Your task to perform on an android device: Go to CNN.com Image 0: 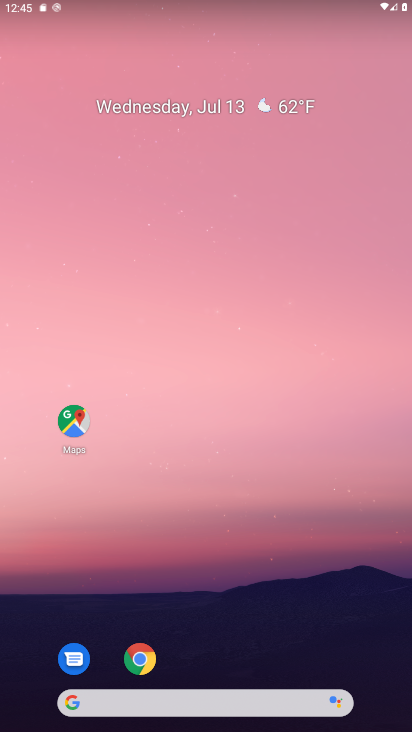
Step 0: drag from (223, 595) to (177, 219)
Your task to perform on an android device: Go to CNN.com Image 1: 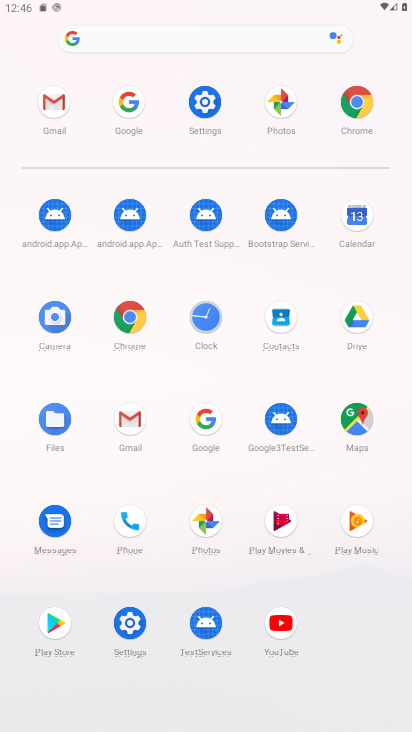
Step 1: click (357, 105)
Your task to perform on an android device: Go to CNN.com Image 2: 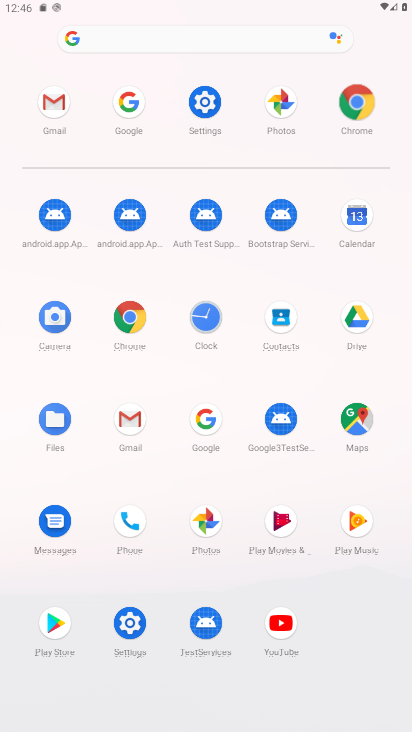
Step 2: click (360, 105)
Your task to perform on an android device: Go to CNN.com Image 3: 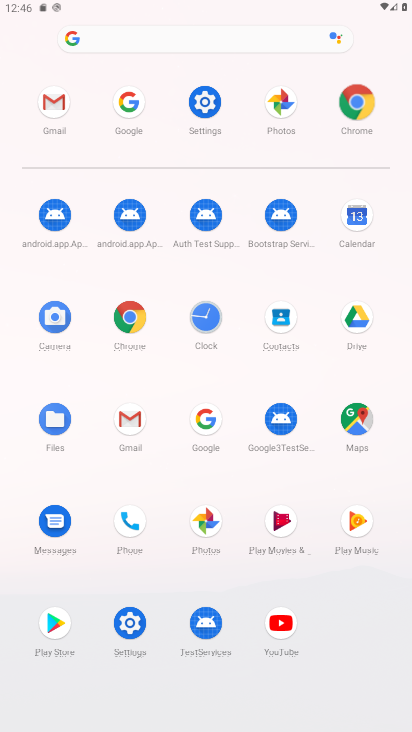
Step 3: click (361, 105)
Your task to perform on an android device: Go to CNN.com Image 4: 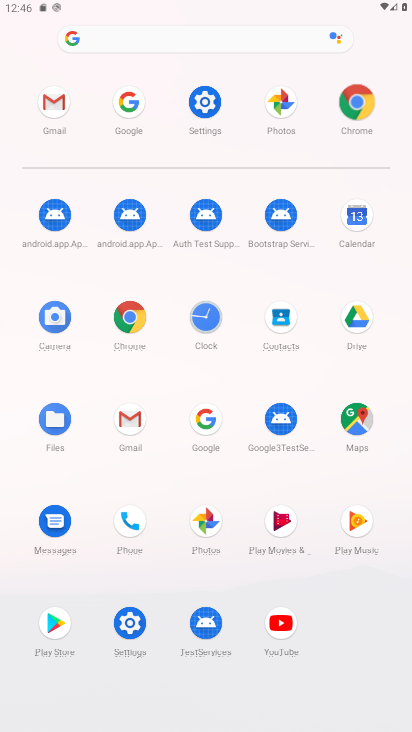
Step 4: click (358, 106)
Your task to perform on an android device: Go to CNN.com Image 5: 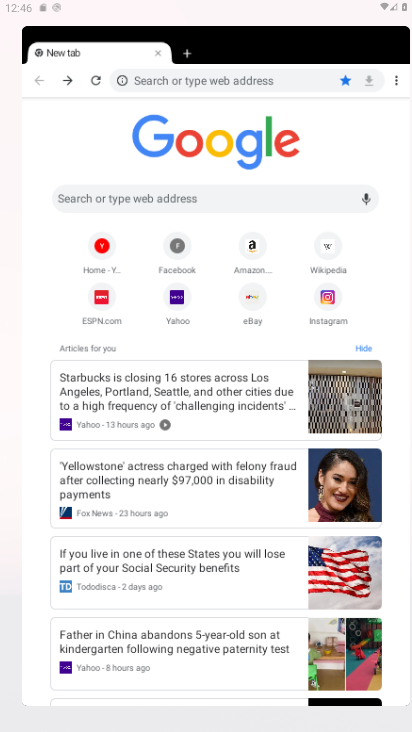
Step 5: click (358, 108)
Your task to perform on an android device: Go to CNN.com Image 6: 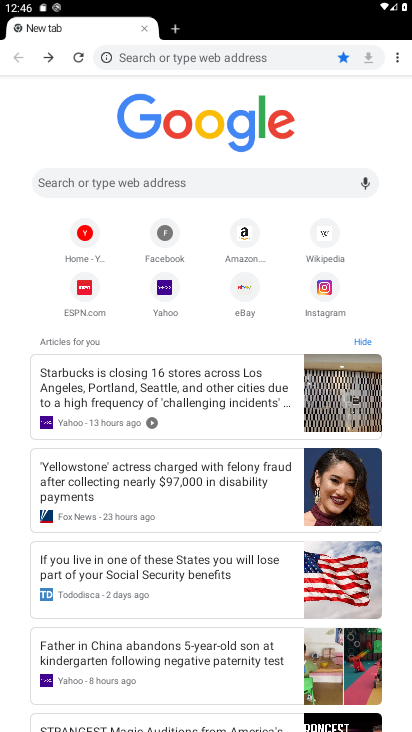
Step 6: click (358, 108)
Your task to perform on an android device: Go to CNN.com Image 7: 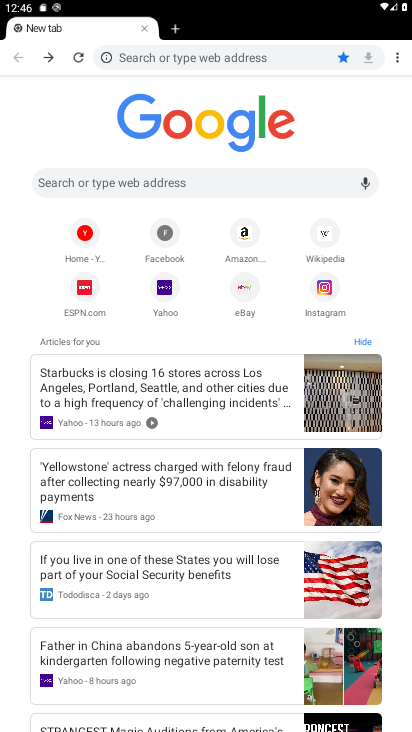
Step 7: click (358, 108)
Your task to perform on an android device: Go to CNN.com Image 8: 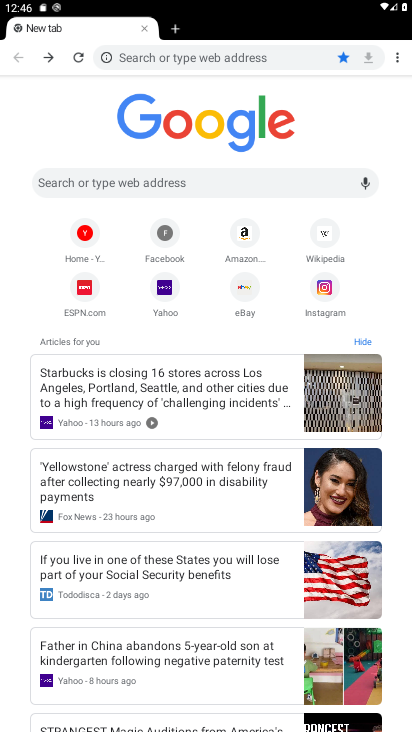
Step 8: click (64, 176)
Your task to perform on an android device: Go to CNN.com Image 9: 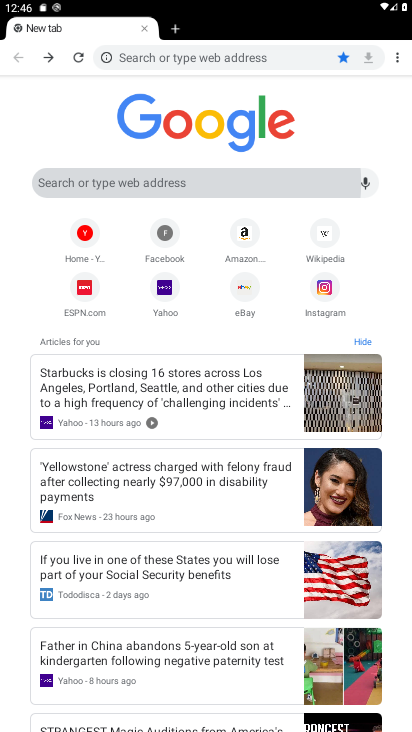
Step 9: click (81, 171)
Your task to perform on an android device: Go to CNN.com Image 10: 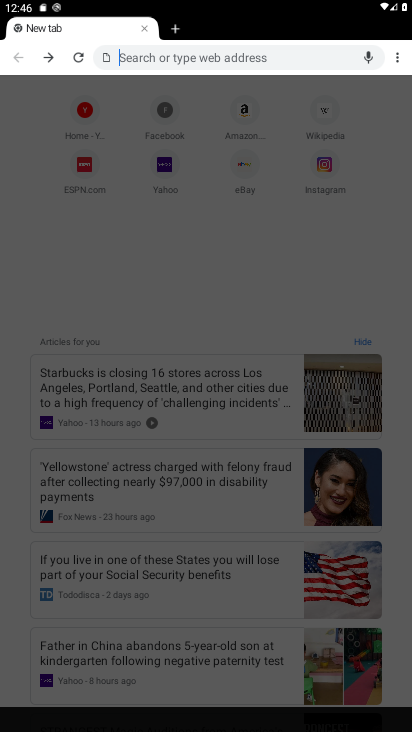
Step 10: click (85, 170)
Your task to perform on an android device: Go to CNN.com Image 11: 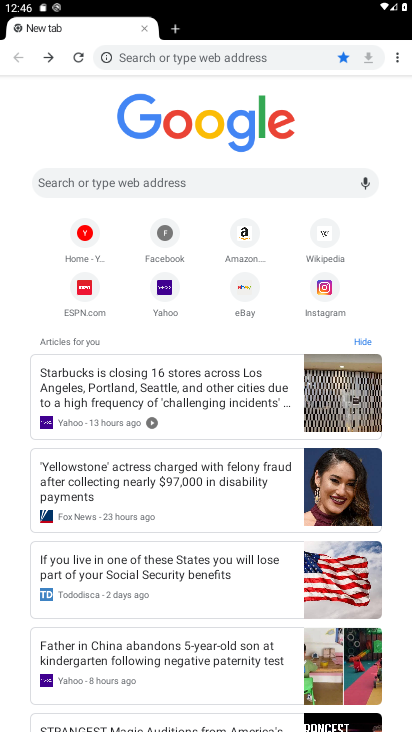
Step 11: click (138, 56)
Your task to perform on an android device: Go to CNN.com Image 12: 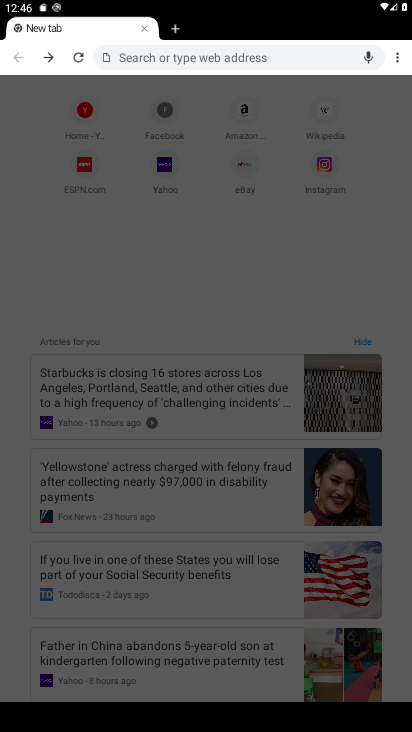
Step 12: type "CNN.com"
Your task to perform on an android device: Go to CNN.com Image 13: 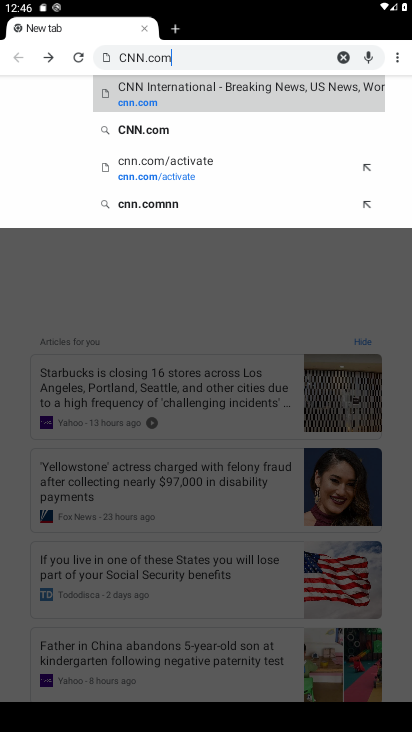
Step 13: click (142, 132)
Your task to perform on an android device: Go to CNN.com Image 14: 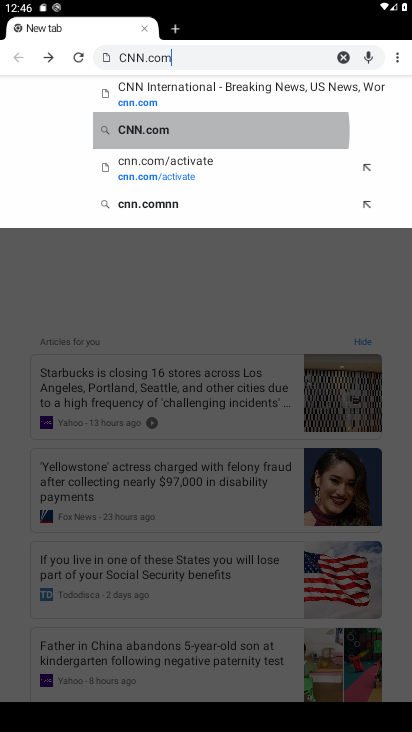
Step 14: click (142, 131)
Your task to perform on an android device: Go to CNN.com Image 15: 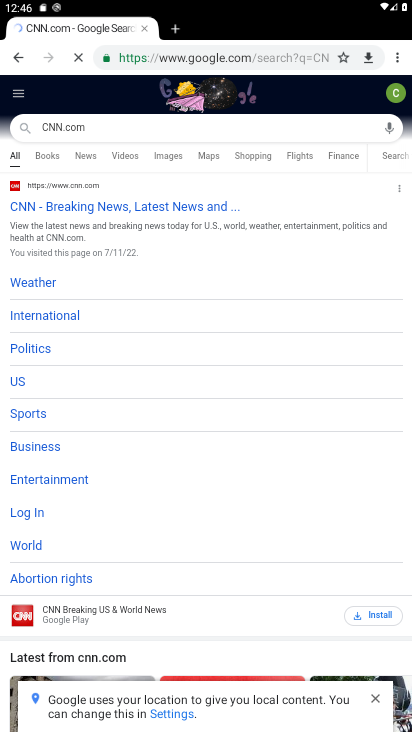
Step 15: task complete